Your task to perform on an android device: Open my contact list Image 0: 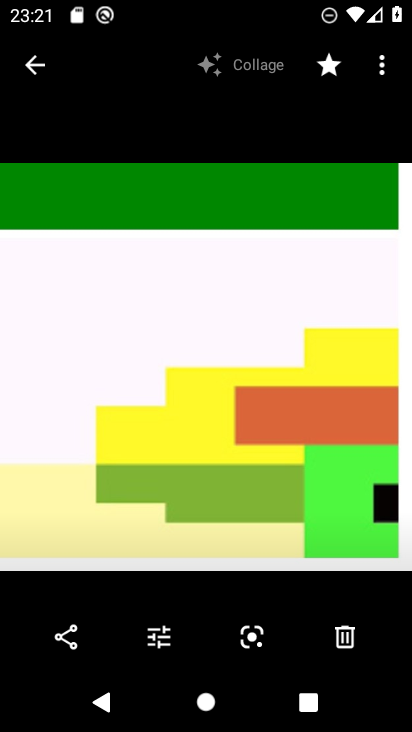
Step 0: press home button
Your task to perform on an android device: Open my contact list Image 1: 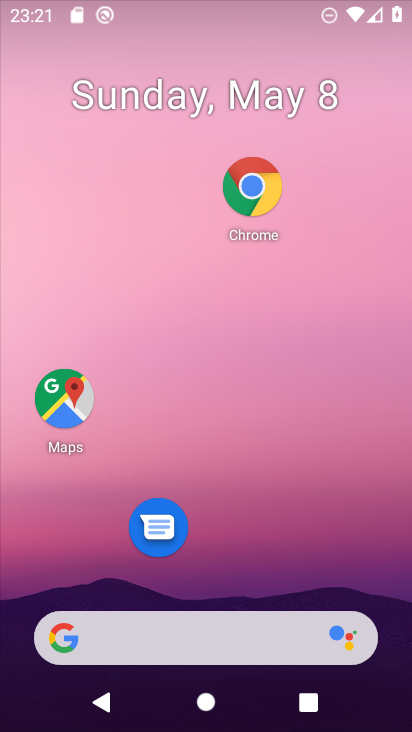
Step 1: drag from (299, 379) to (296, 291)
Your task to perform on an android device: Open my contact list Image 2: 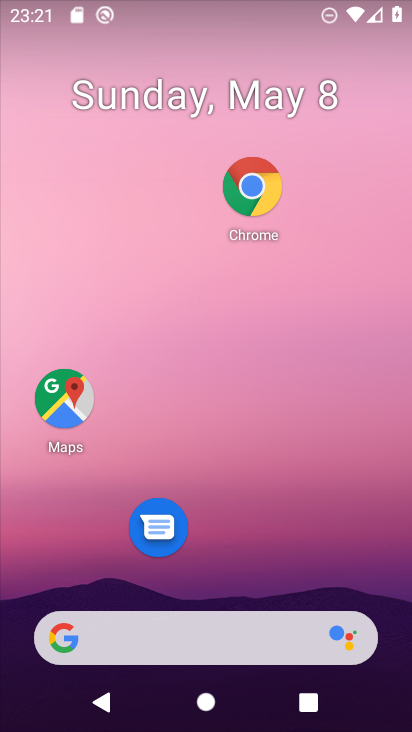
Step 2: drag from (296, 617) to (311, 282)
Your task to perform on an android device: Open my contact list Image 3: 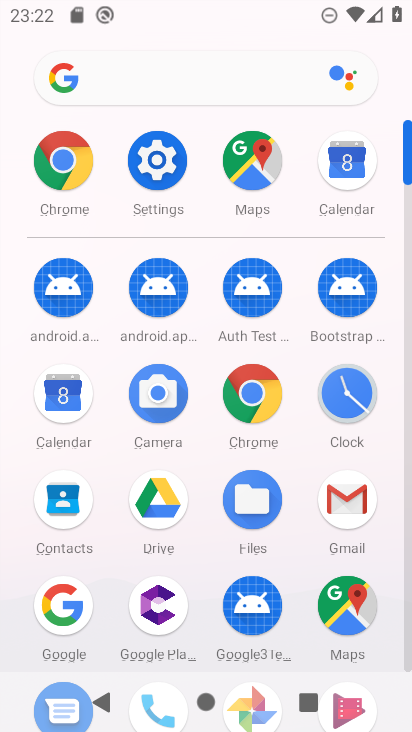
Step 3: drag from (196, 588) to (244, 266)
Your task to perform on an android device: Open my contact list Image 4: 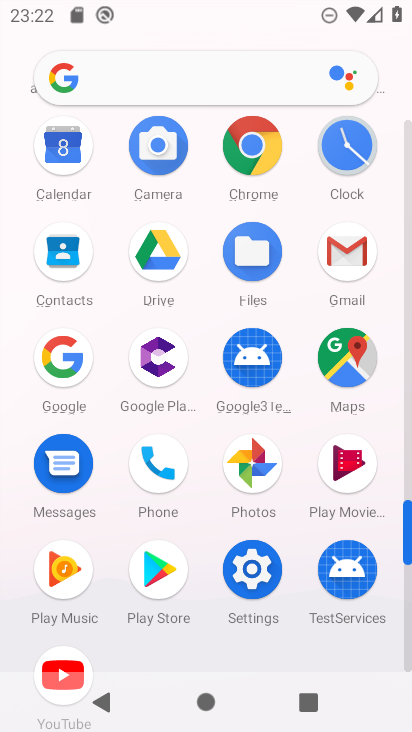
Step 4: click (138, 456)
Your task to perform on an android device: Open my contact list Image 5: 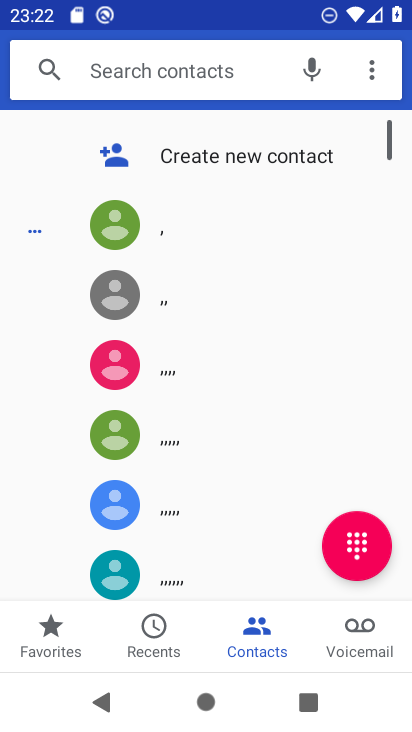
Step 5: task complete